Your task to perform on an android device: remove spam from my inbox in the gmail app Image 0: 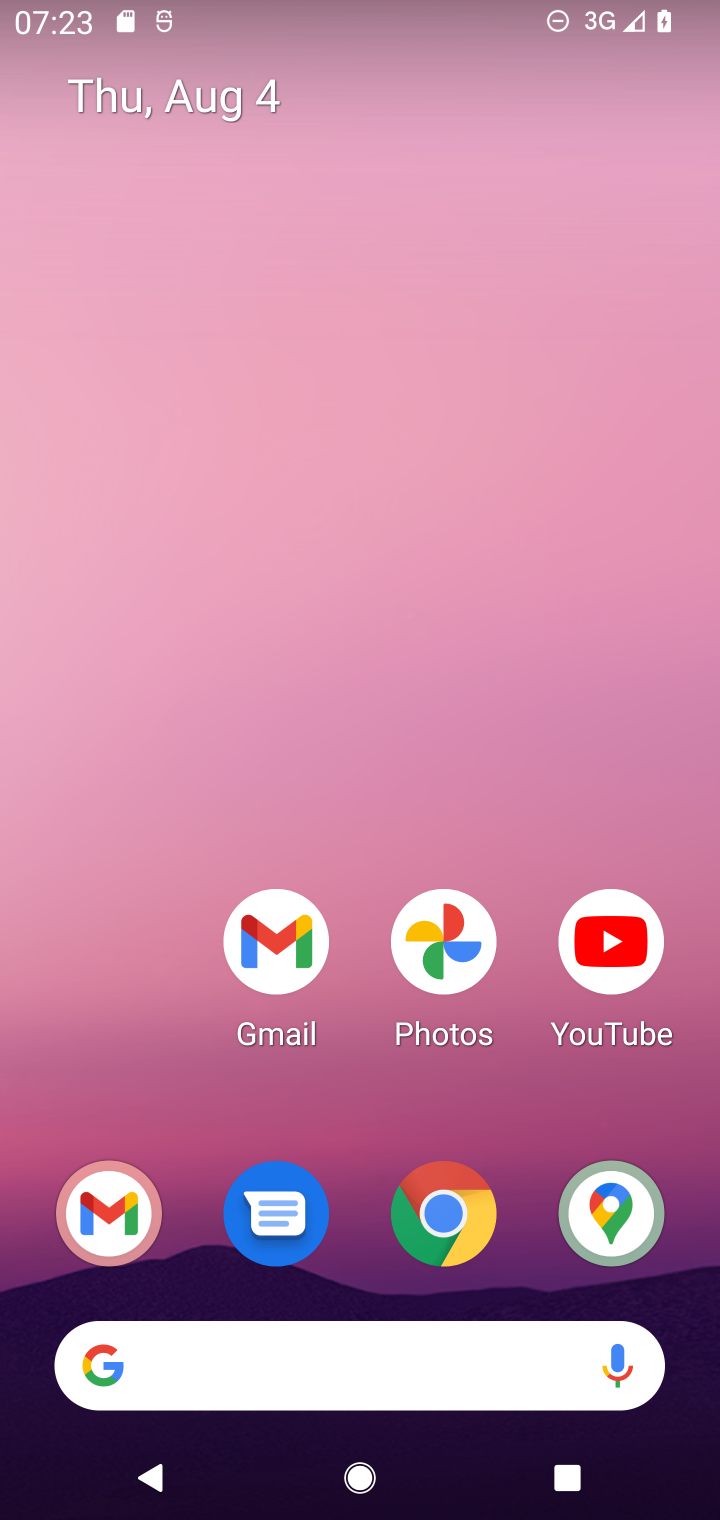
Step 0: drag from (130, 1111) to (208, 363)
Your task to perform on an android device: remove spam from my inbox in the gmail app Image 1: 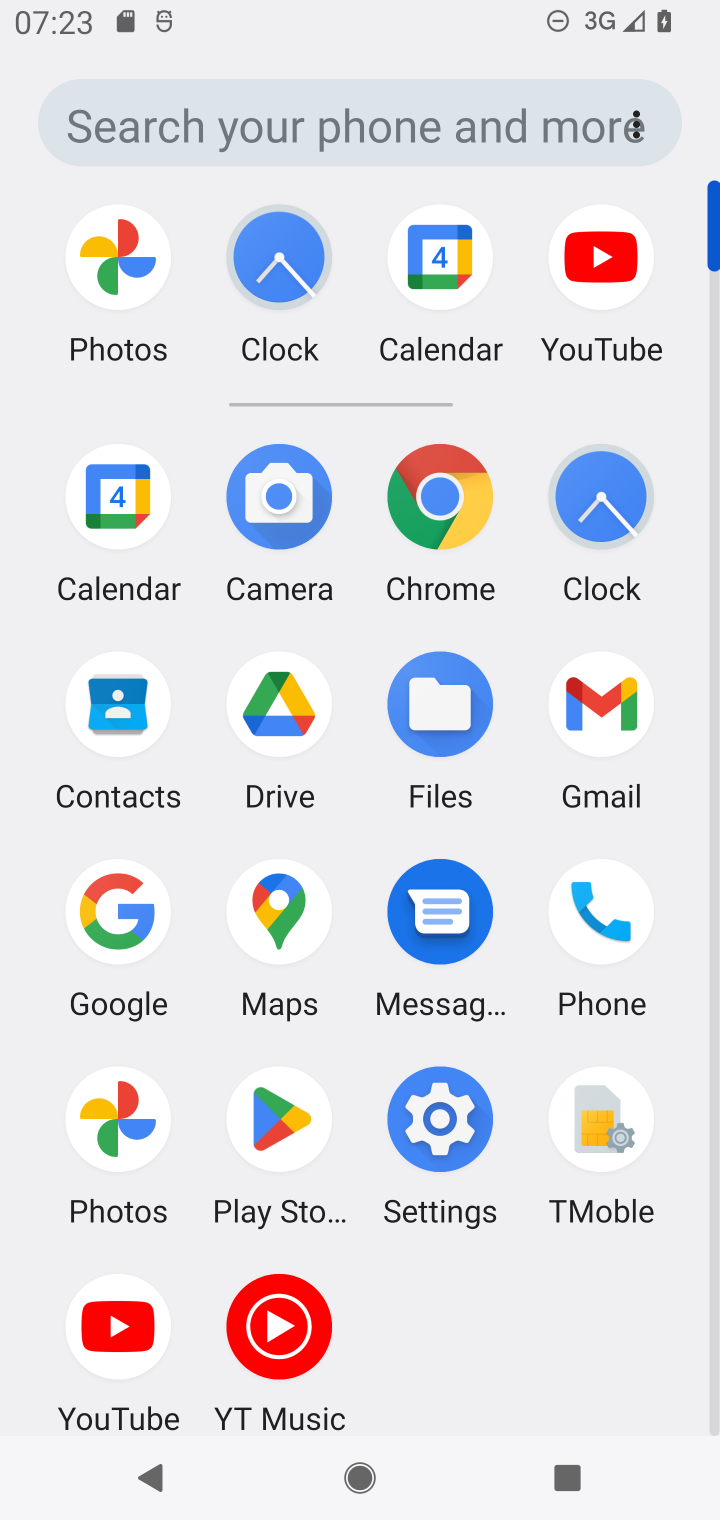
Step 1: click (596, 706)
Your task to perform on an android device: remove spam from my inbox in the gmail app Image 2: 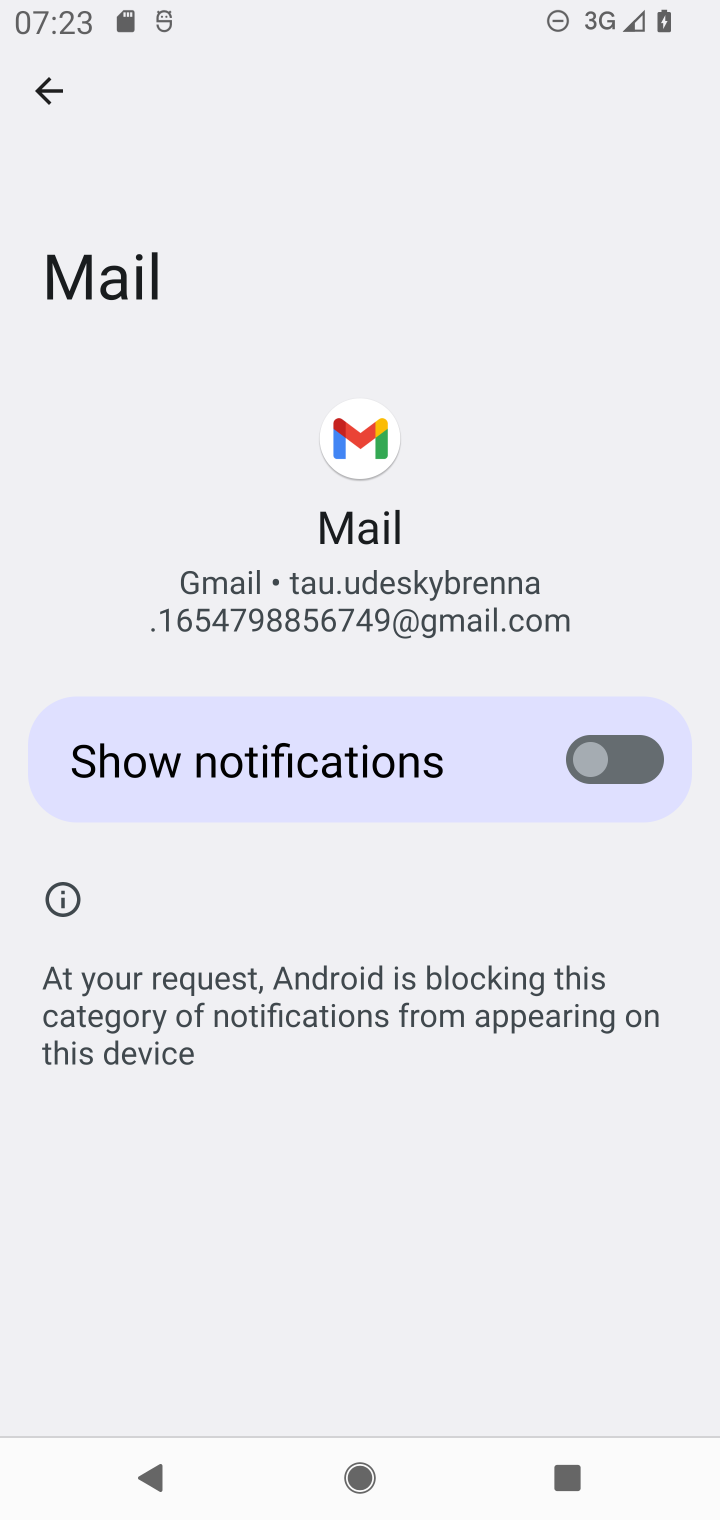
Step 2: press back button
Your task to perform on an android device: remove spam from my inbox in the gmail app Image 3: 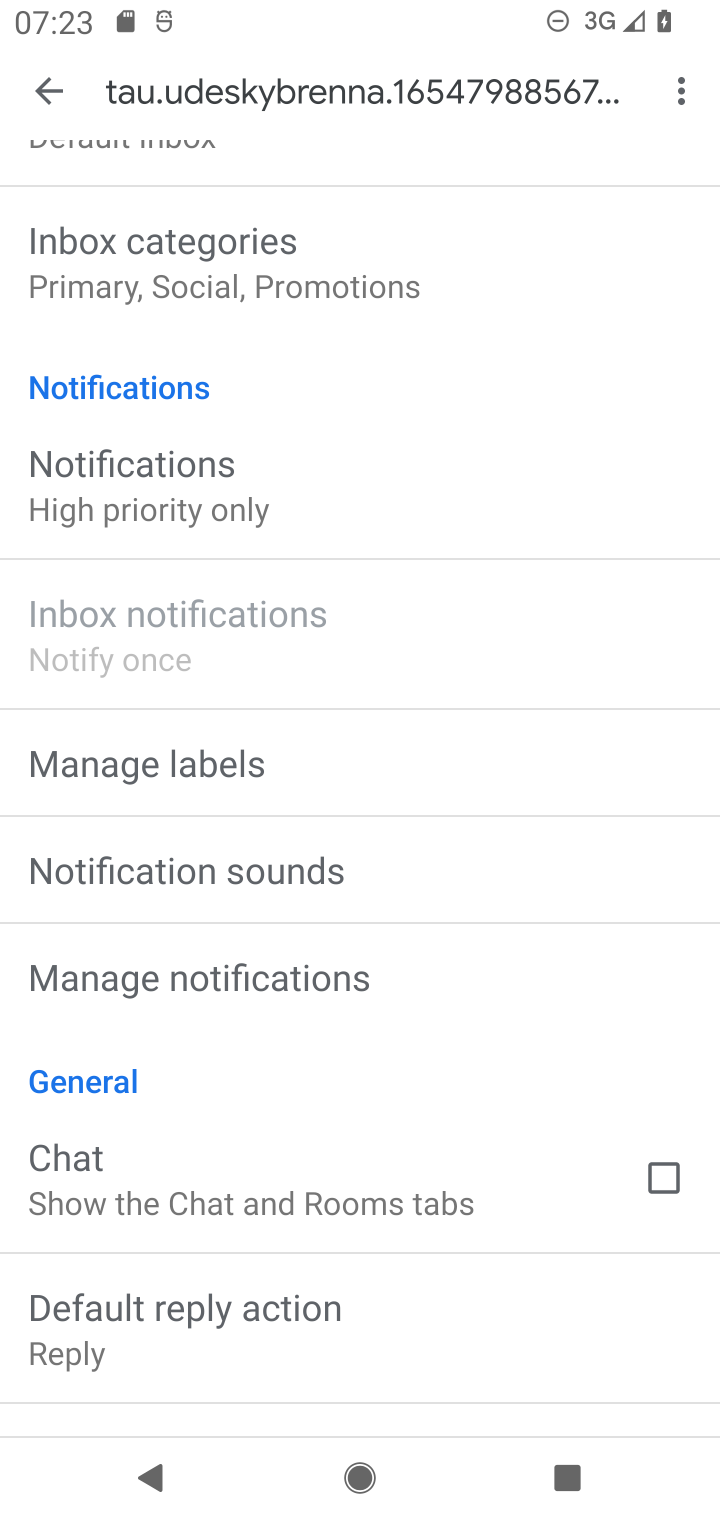
Step 3: press back button
Your task to perform on an android device: remove spam from my inbox in the gmail app Image 4: 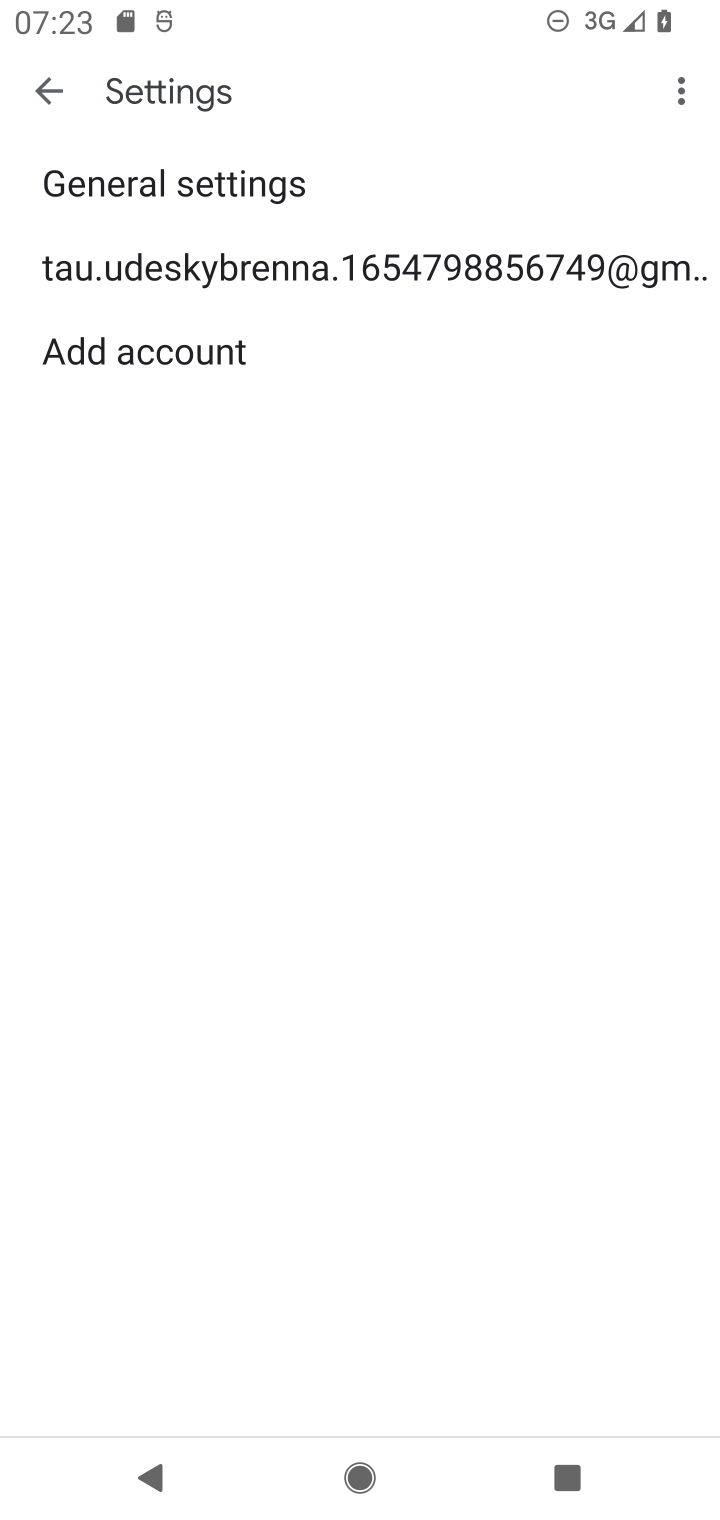
Step 4: press back button
Your task to perform on an android device: remove spam from my inbox in the gmail app Image 5: 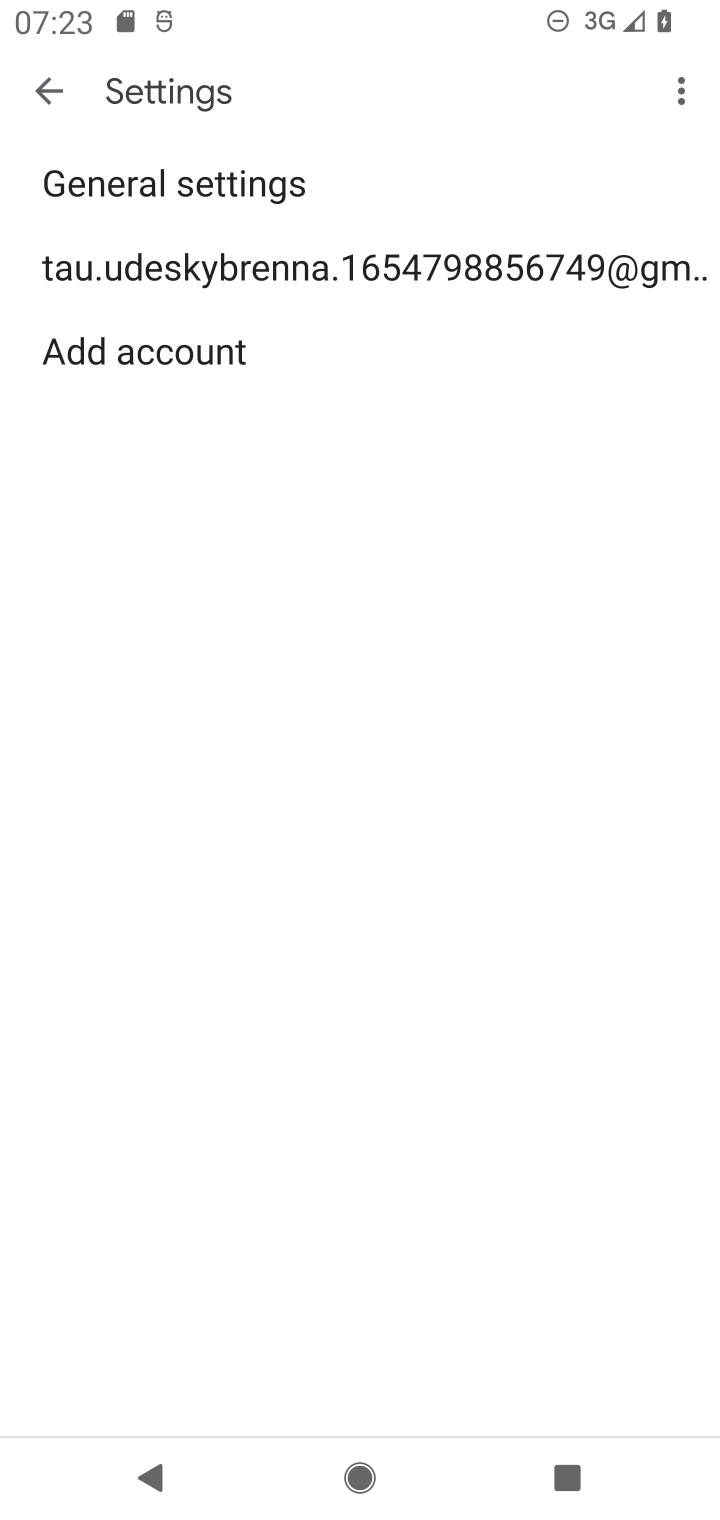
Step 5: press back button
Your task to perform on an android device: remove spam from my inbox in the gmail app Image 6: 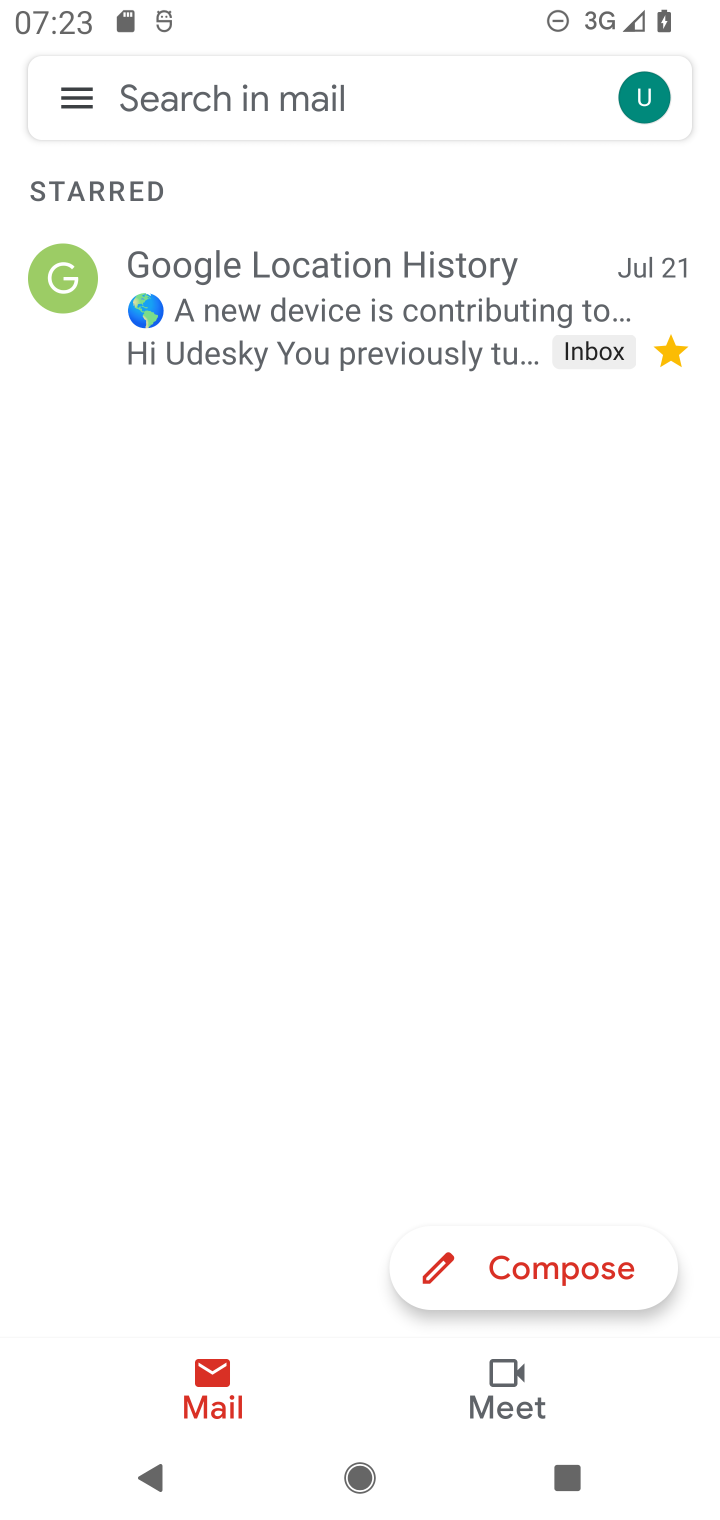
Step 6: click (82, 98)
Your task to perform on an android device: remove spam from my inbox in the gmail app Image 7: 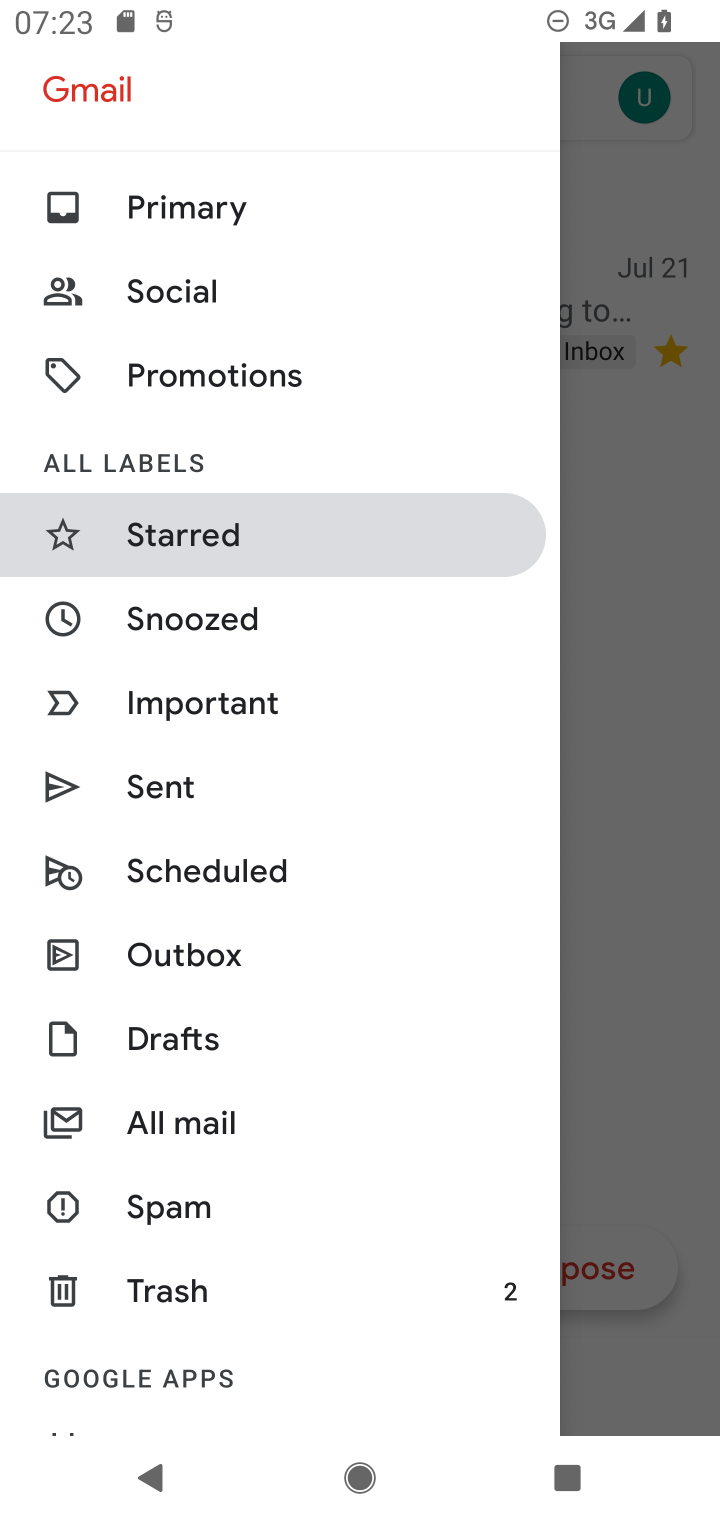
Step 7: click (221, 1188)
Your task to perform on an android device: remove spam from my inbox in the gmail app Image 8: 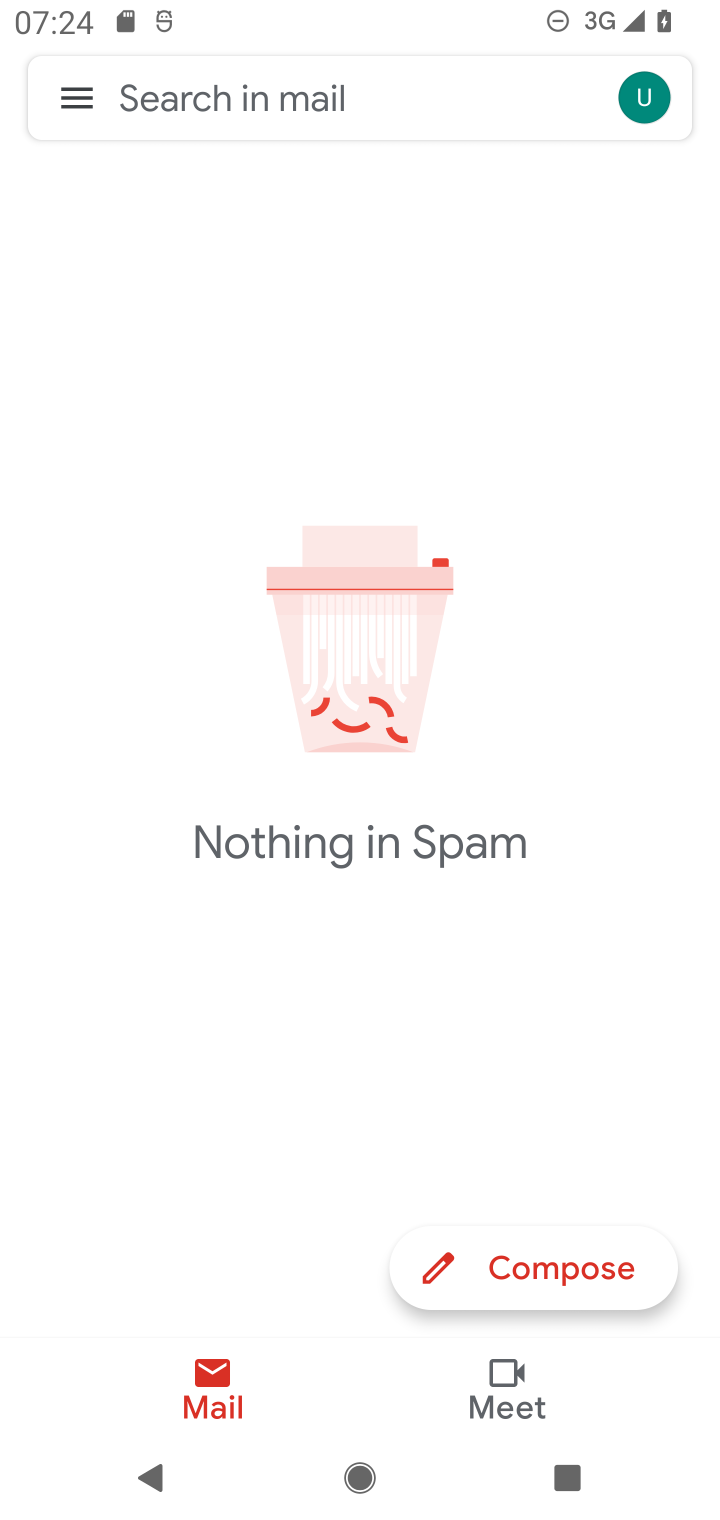
Step 8: task complete